Your task to perform on an android device: refresh tabs in the chrome app Image 0: 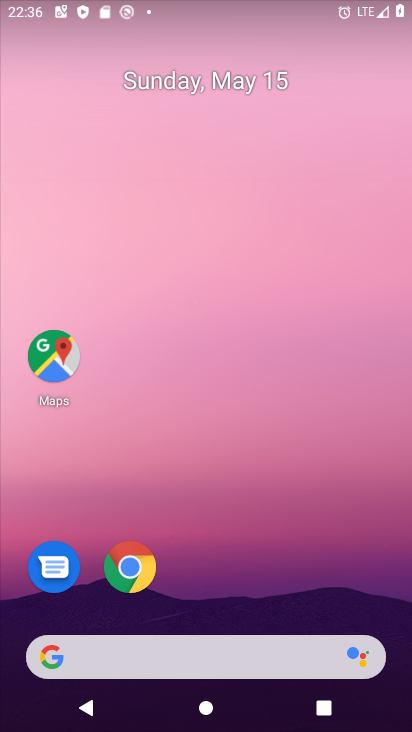
Step 0: click (135, 564)
Your task to perform on an android device: refresh tabs in the chrome app Image 1: 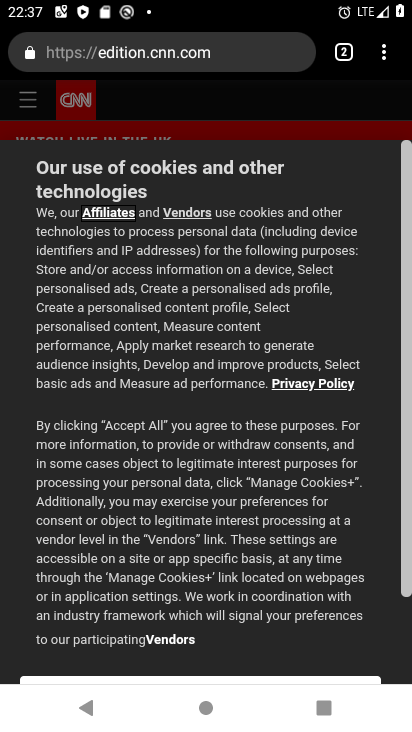
Step 1: click (386, 53)
Your task to perform on an android device: refresh tabs in the chrome app Image 2: 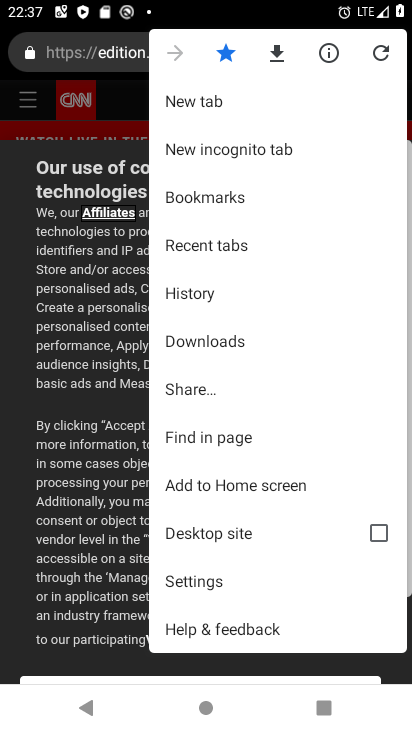
Step 2: click (384, 54)
Your task to perform on an android device: refresh tabs in the chrome app Image 3: 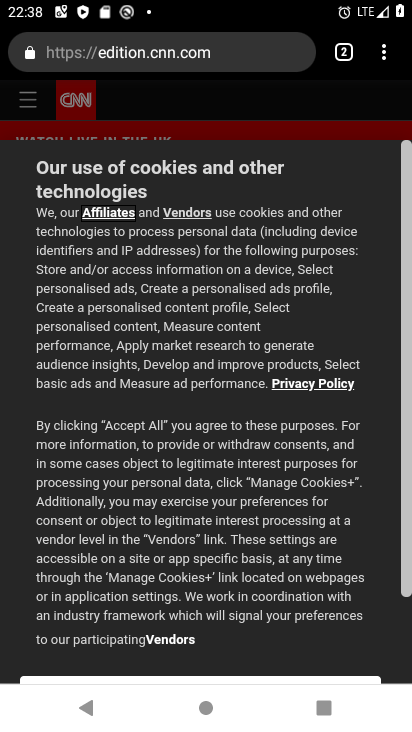
Step 3: click (383, 44)
Your task to perform on an android device: refresh tabs in the chrome app Image 4: 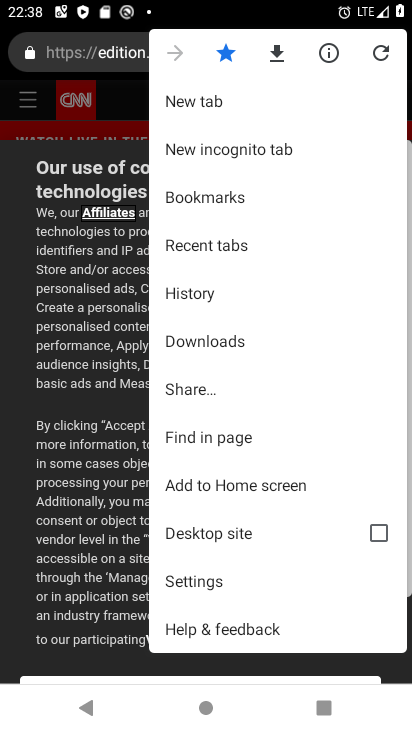
Step 4: click (373, 57)
Your task to perform on an android device: refresh tabs in the chrome app Image 5: 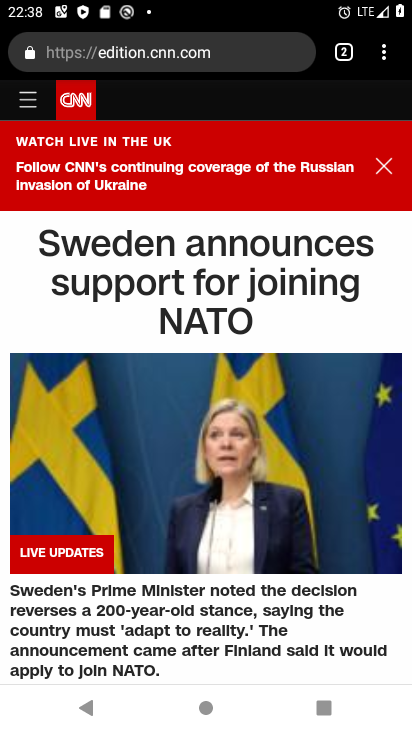
Step 5: task complete